Your task to perform on an android device: Add amazon basics triple a to the cart on bestbuy.com Image 0: 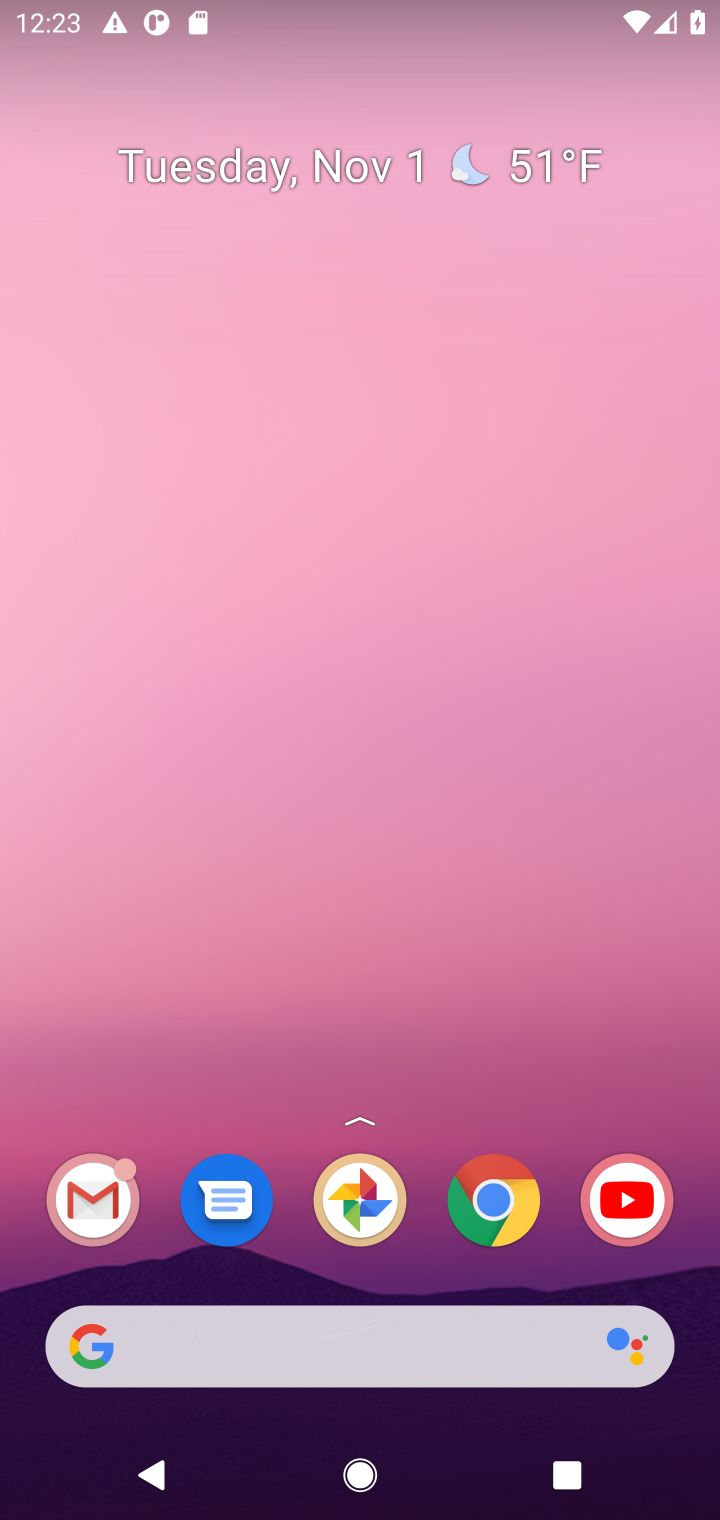
Step 0: click (498, 1213)
Your task to perform on an android device: Add amazon basics triple a to the cart on bestbuy.com Image 1: 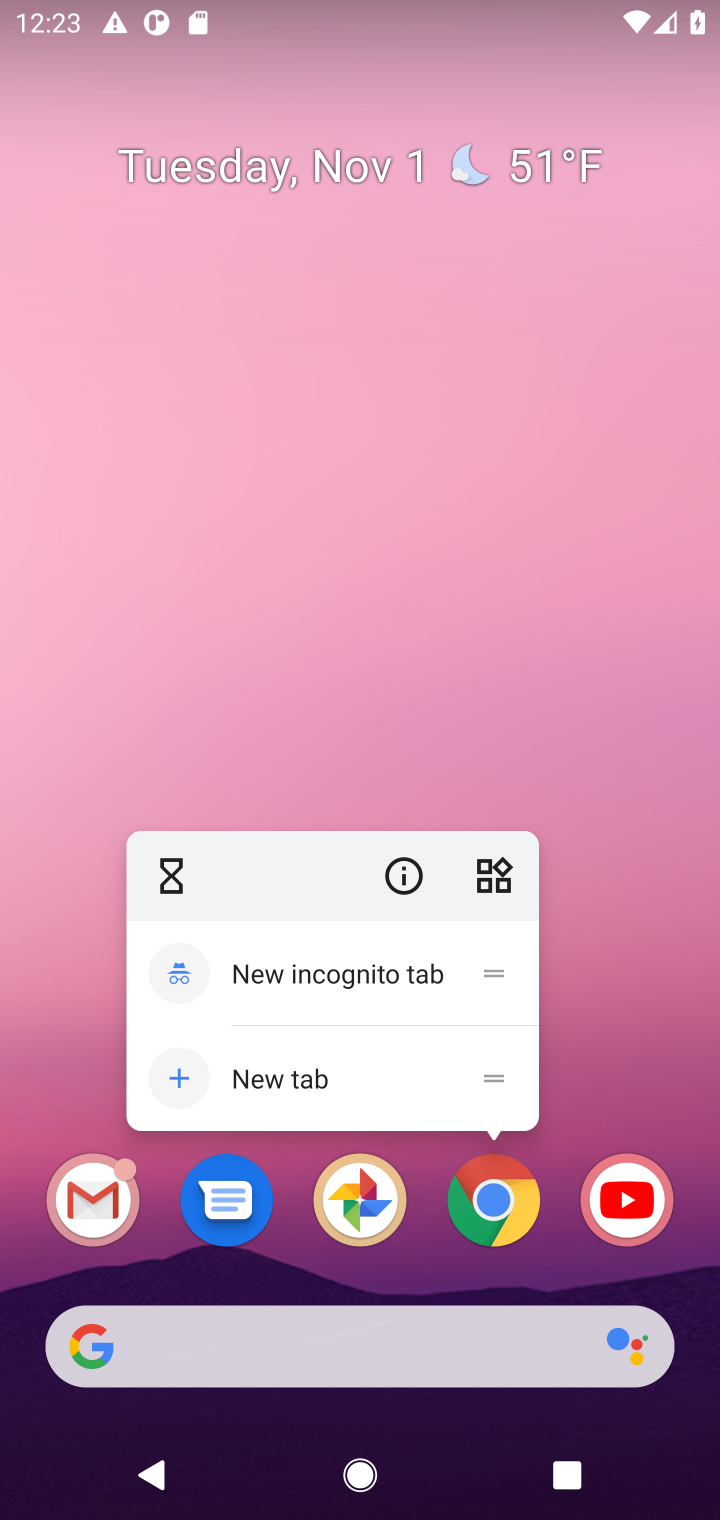
Step 1: click (498, 1213)
Your task to perform on an android device: Add amazon basics triple a to the cart on bestbuy.com Image 2: 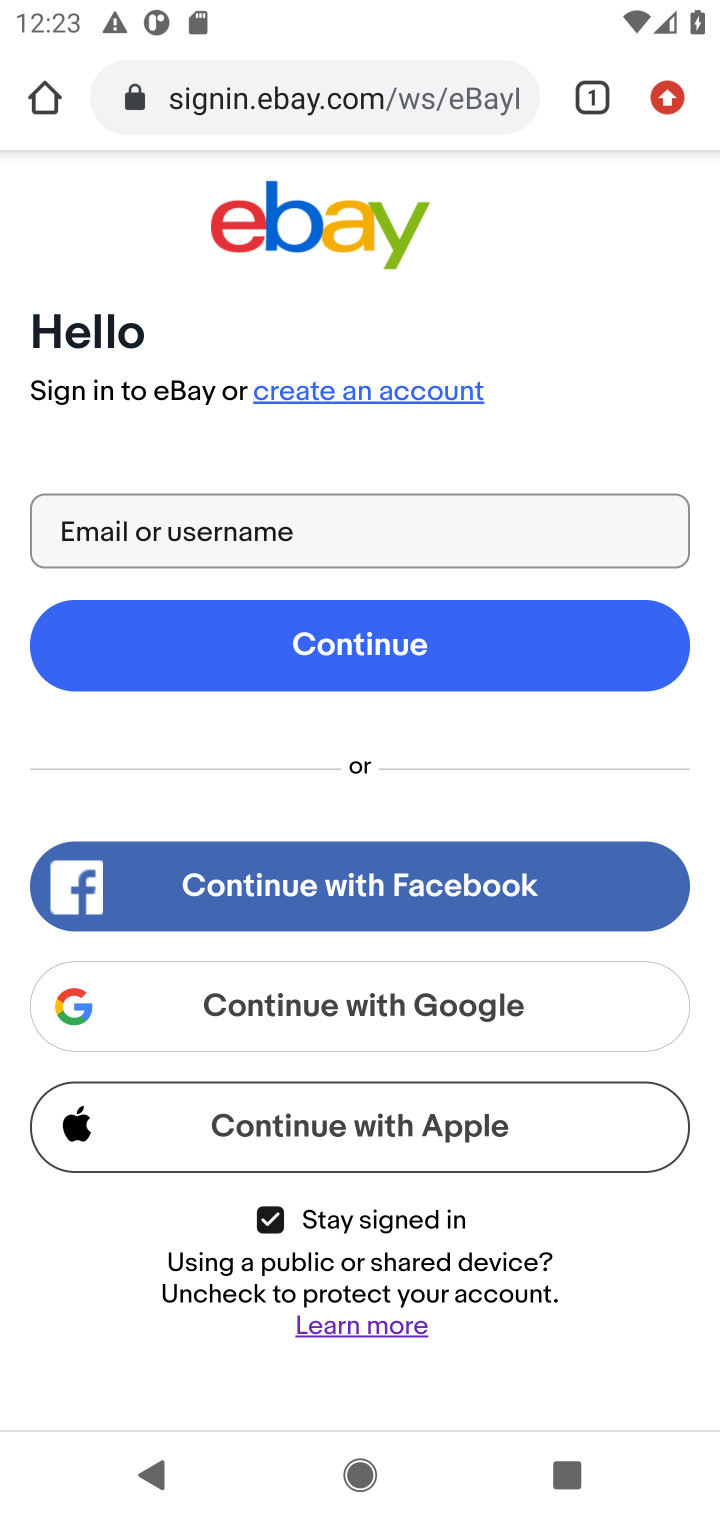
Step 2: click (333, 112)
Your task to perform on an android device: Add amazon basics triple a to the cart on bestbuy.com Image 3: 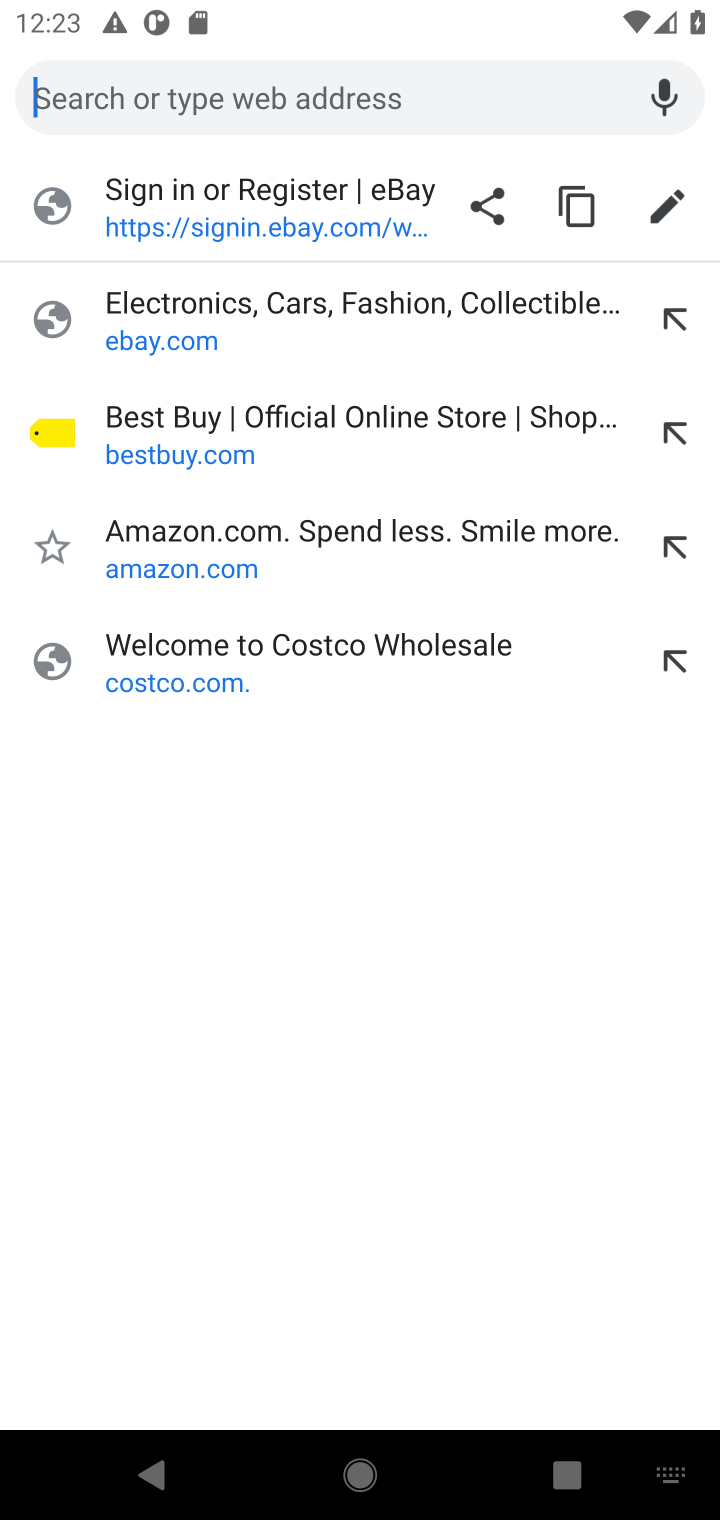
Step 3: type "bestbuy.com"
Your task to perform on an android device: Add amazon basics triple a to the cart on bestbuy.com Image 4: 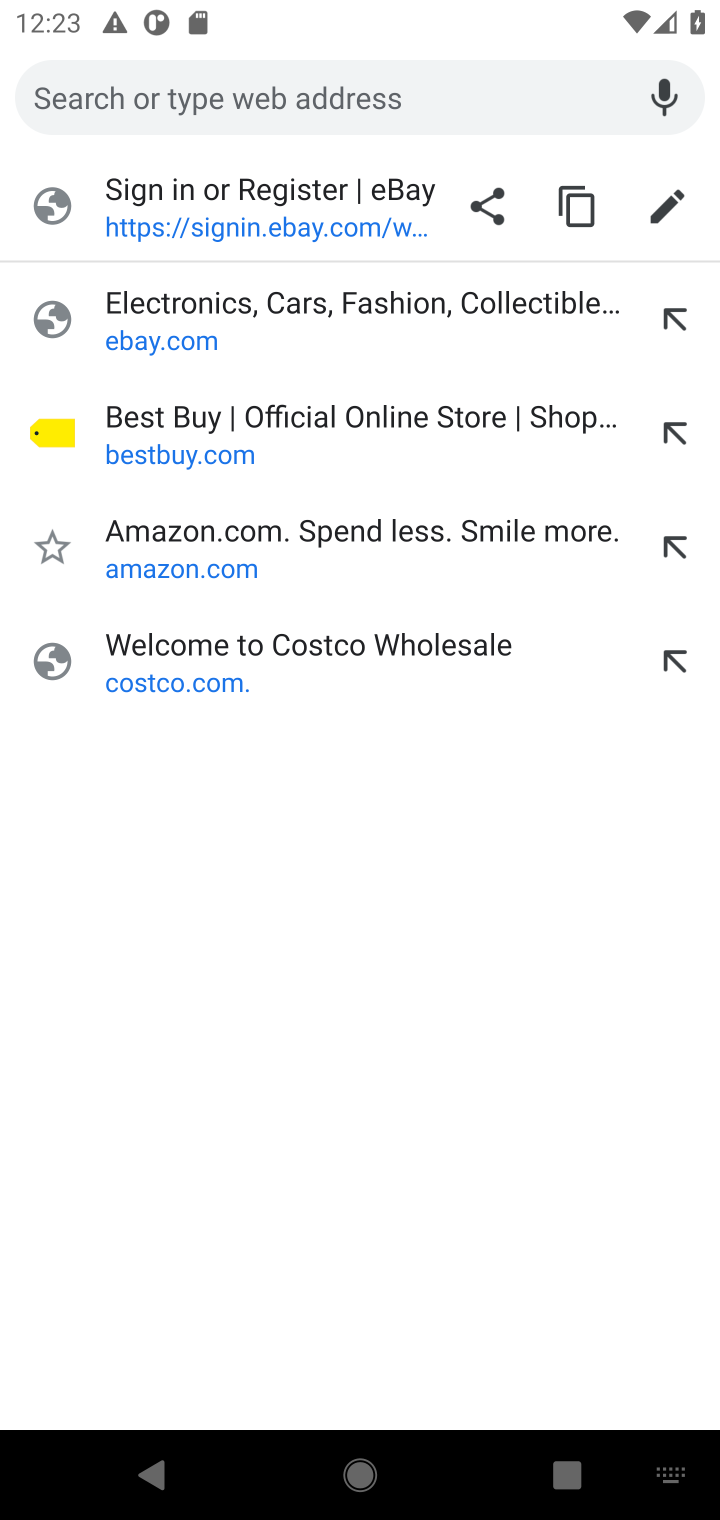
Step 4: click (185, 453)
Your task to perform on an android device: Add amazon basics triple a to the cart on bestbuy.com Image 5: 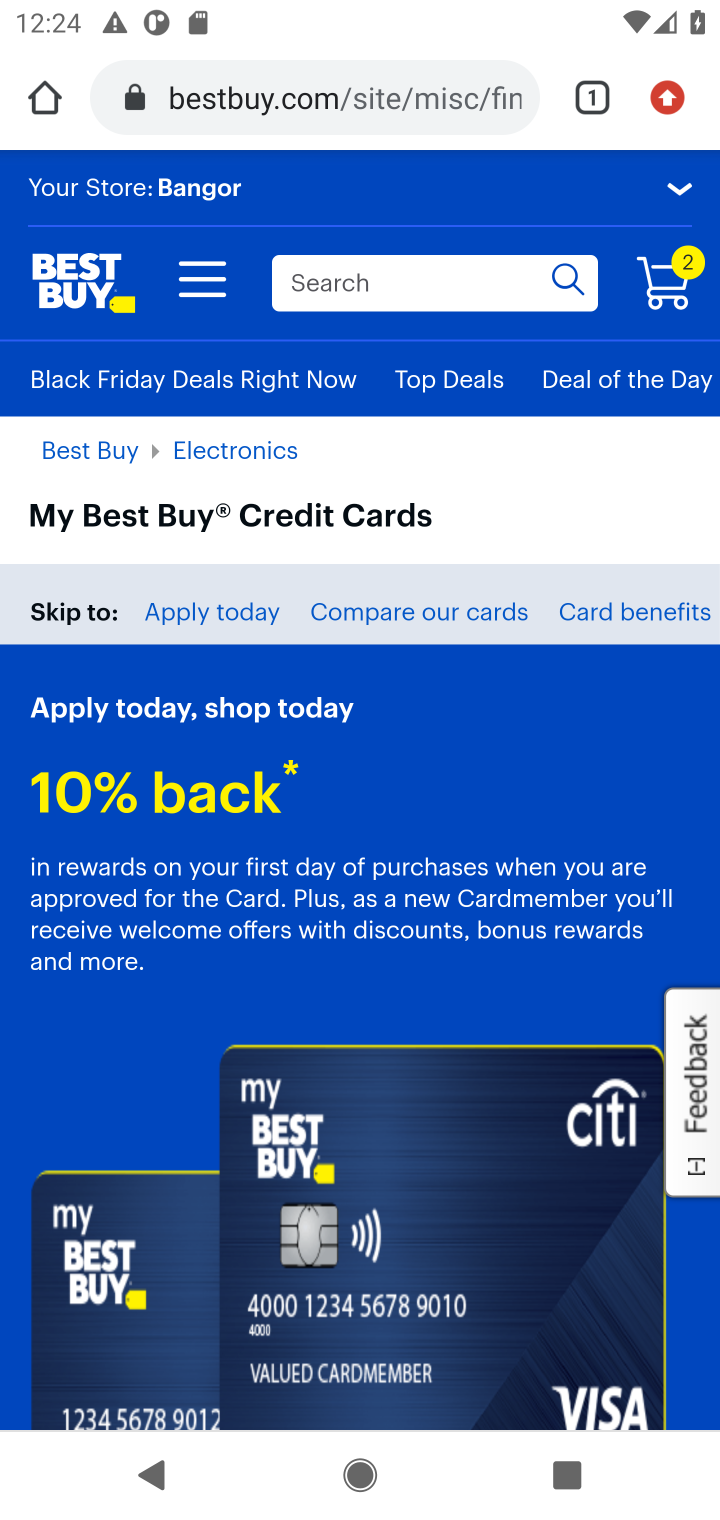
Step 5: click (373, 292)
Your task to perform on an android device: Add amazon basics triple a to the cart on bestbuy.com Image 6: 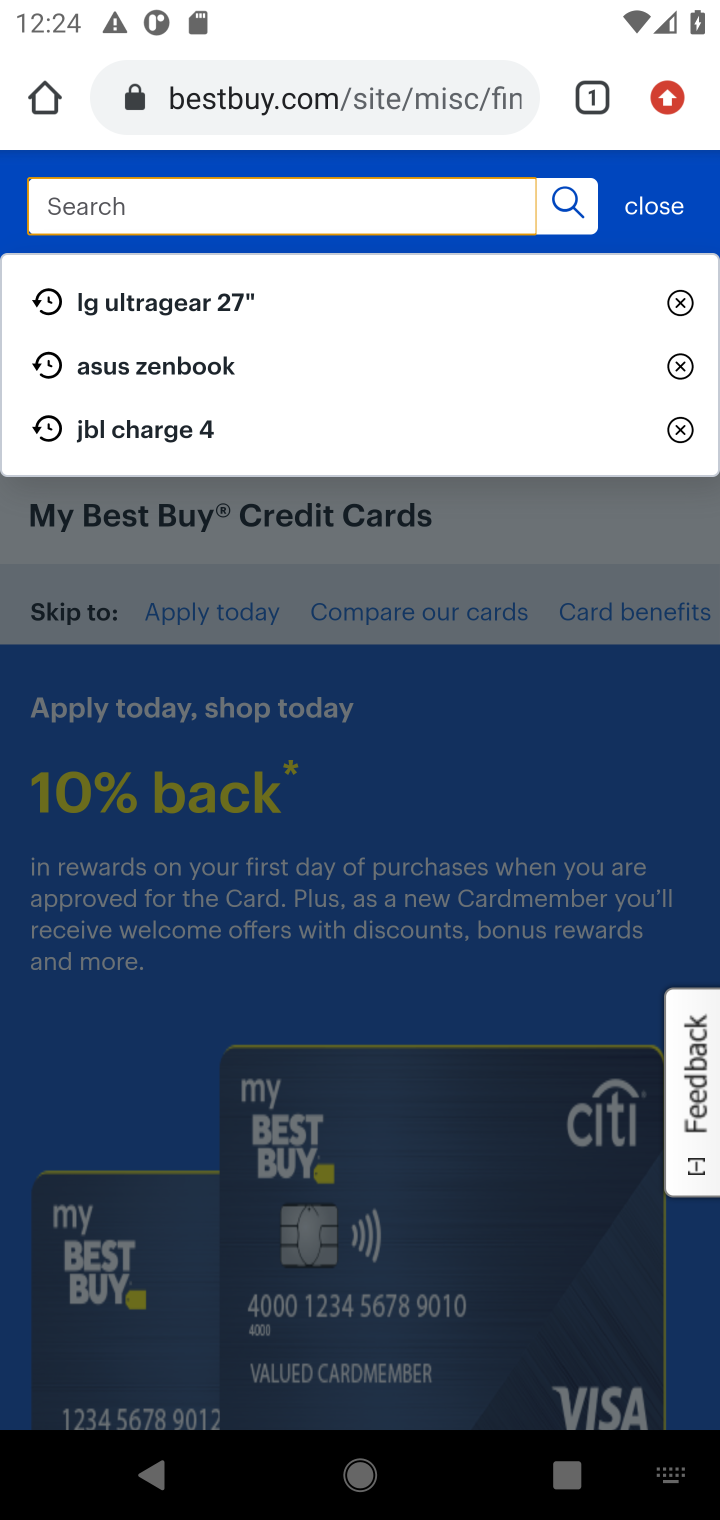
Step 6: type "amazon basics triple a"
Your task to perform on an android device: Add amazon basics triple a to the cart on bestbuy.com Image 7: 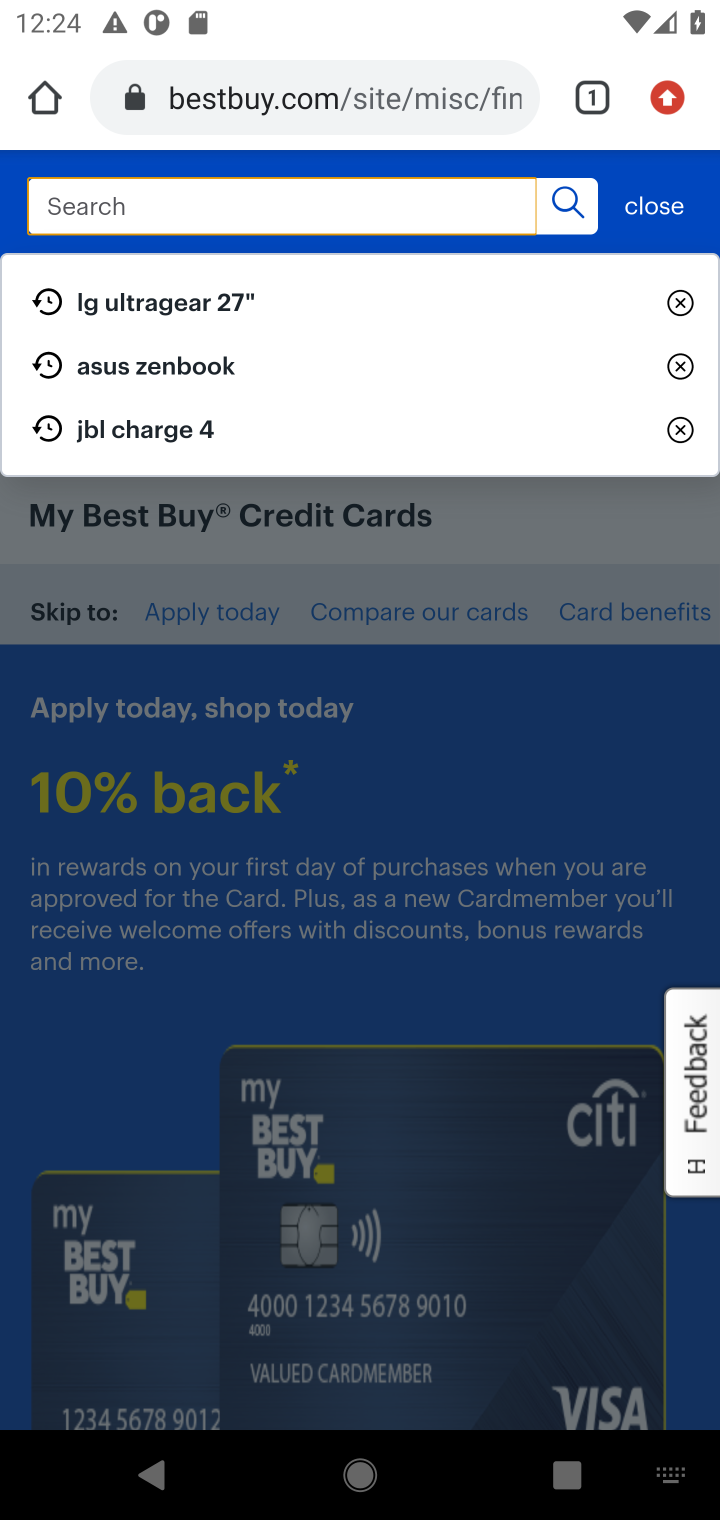
Step 7: click (210, 204)
Your task to perform on an android device: Add amazon basics triple a to the cart on bestbuy.com Image 8: 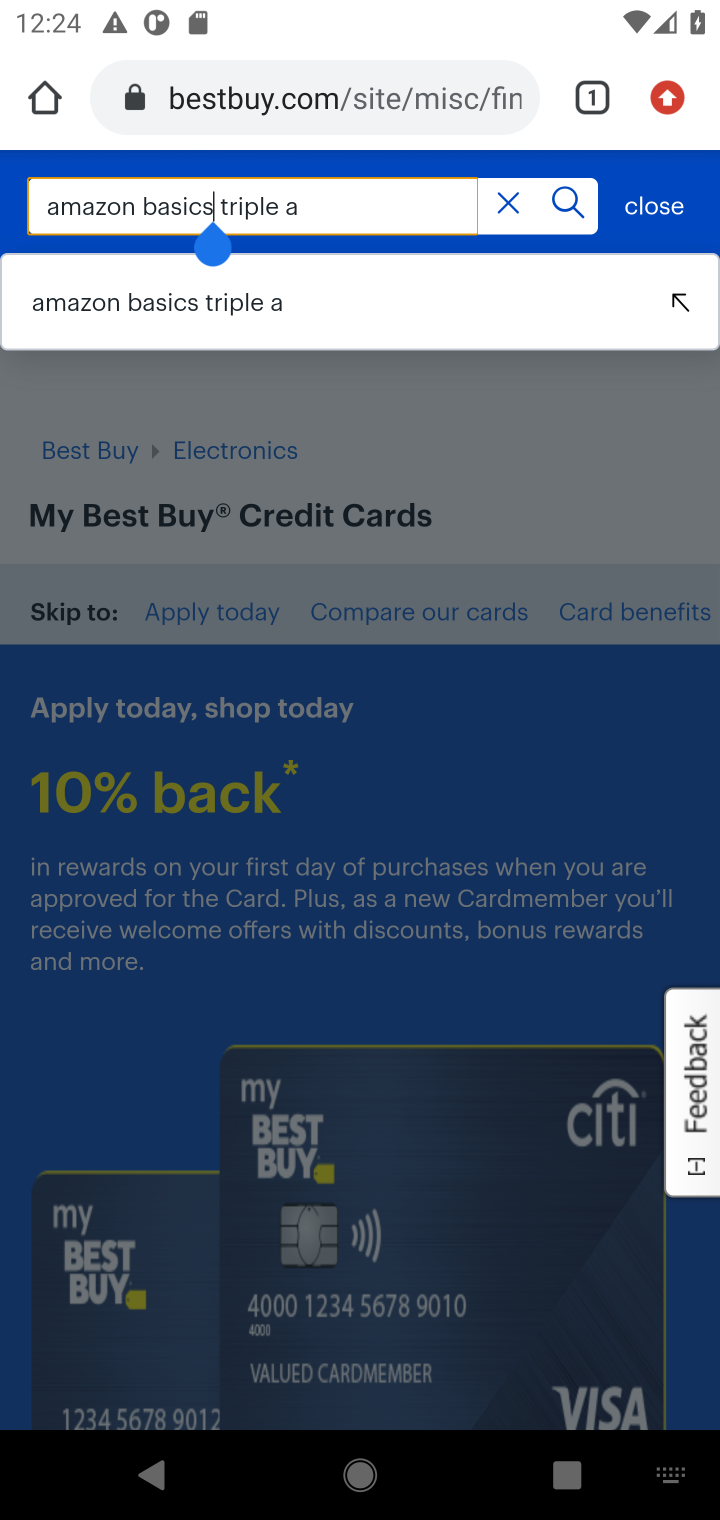
Step 8: click (177, 306)
Your task to perform on an android device: Add amazon basics triple a to the cart on bestbuy.com Image 9: 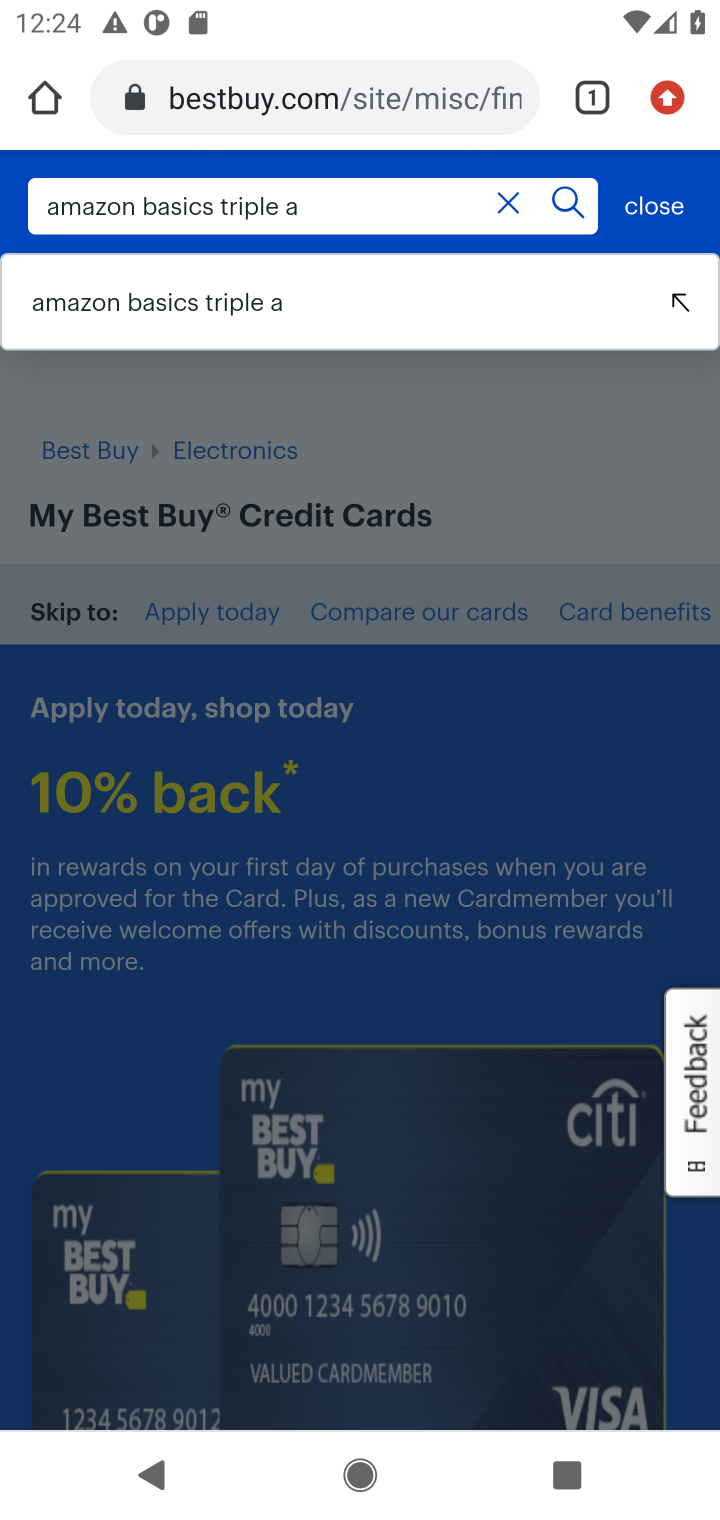
Step 9: click (181, 304)
Your task to perform on an android device: Add amazon basics triple a to the cart on bestbuy.com Image 10: 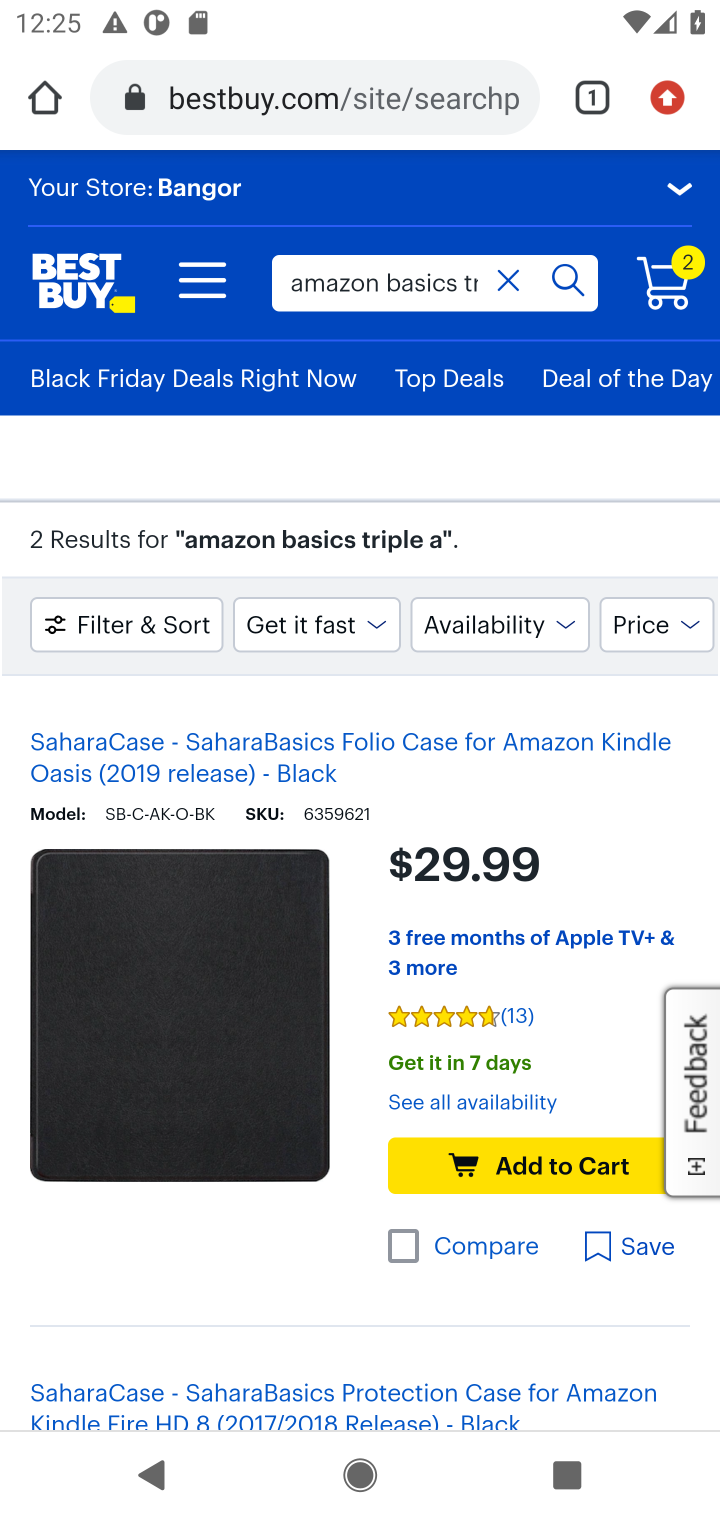
Step 10: task complete